Your task to perform on an android device: Open Amazon Image 0: 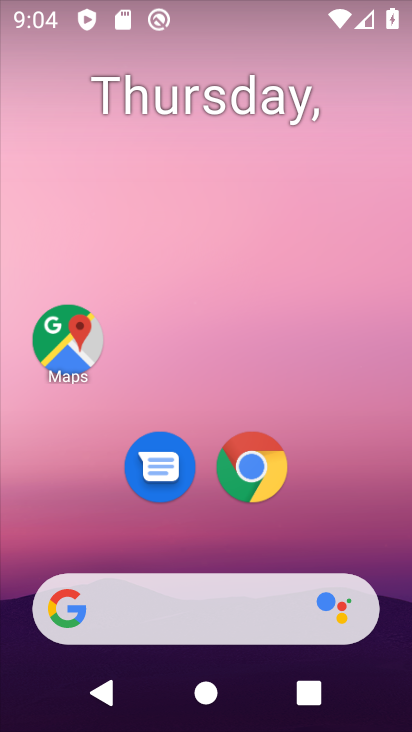
Step 0: click (244, 470)
Your task to perform on an android device: Open Amazon Image 1: 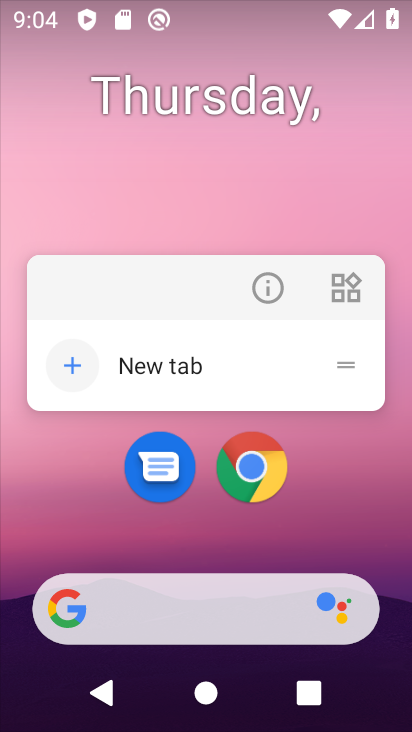
Step 1: click (254, 463)
Your task to perform on an android device: Open Amazon Image 2: 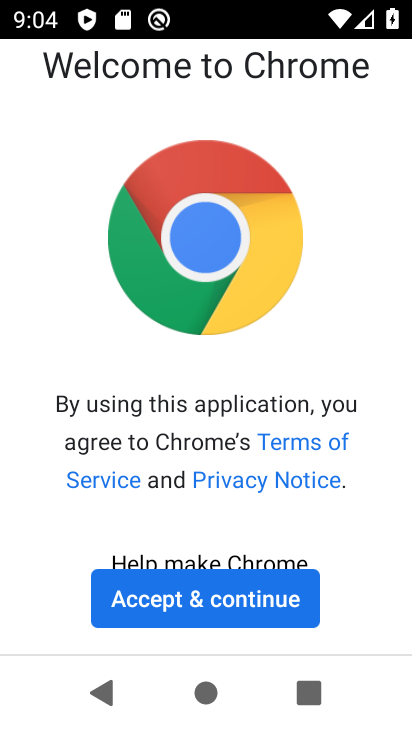
Step 2: click (202, 579)
Your task to perform on an android device: Open Amazon Image 3: 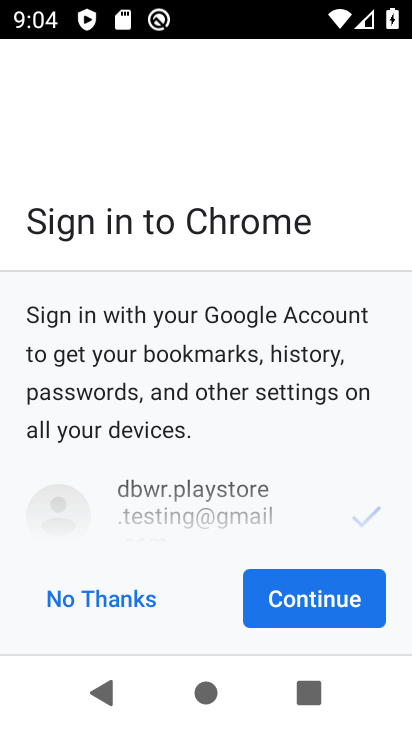
Step 3: click (308, 595)
Your task to perform on an android device: Open Amazon Image 4: 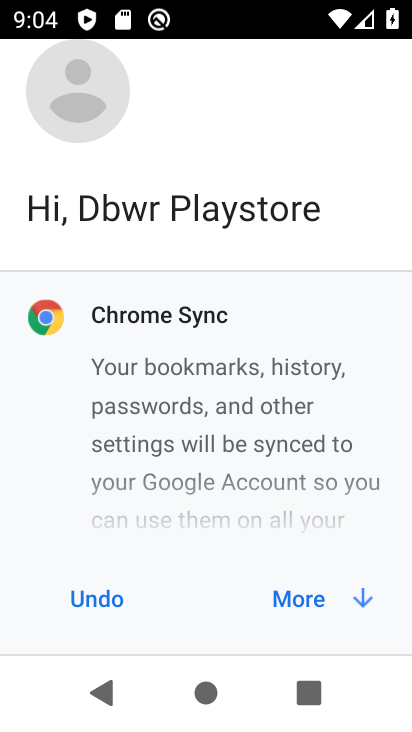
Step 4: click (312, 592)
Your task to perform on an android device: Open Amazon Image 5: 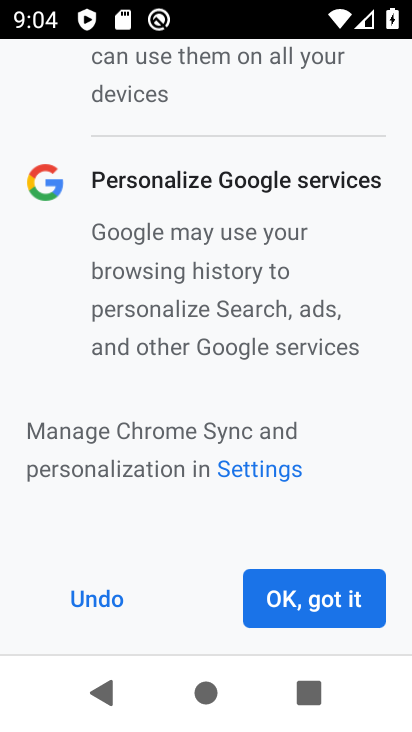
Step 5: click (312, 592)
Your task to perform on an android device: Open Amazon Image 6: 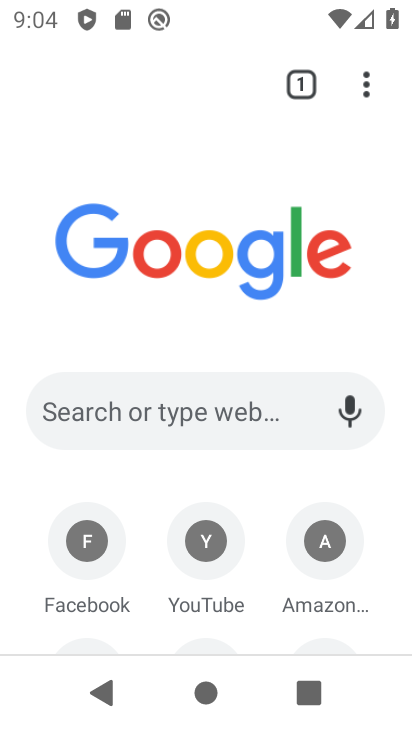
Step 6: click (186, 76)
Your task to perform on an android device: Open Amazon Image 7: 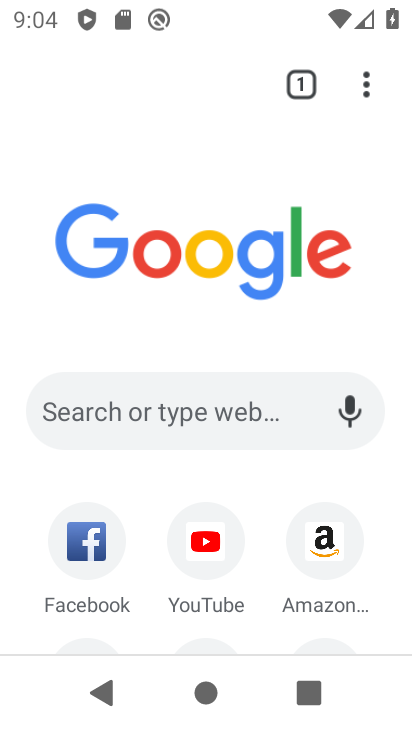
Step 7: click (320, 520)
Your task to perform on an android device: Open Amazon Image 8: 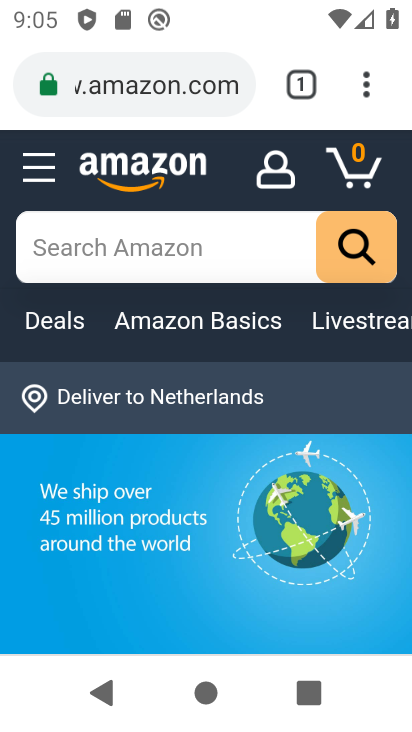
Step 8: task complete